Your task to perform on an android device: change the upload size in google photos Image 0: 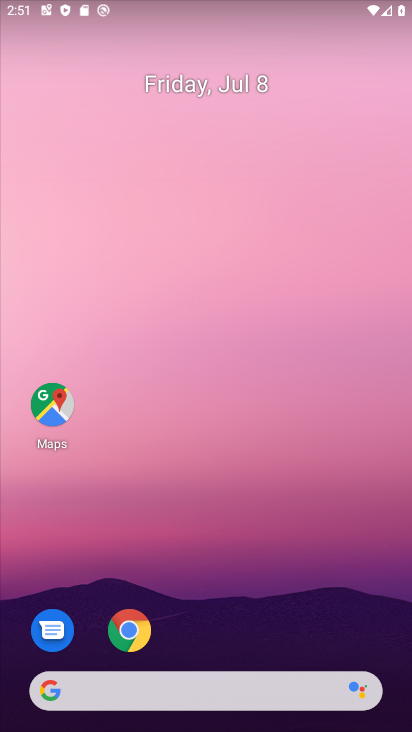
Step 0: drag from (219, 641) to (174, 156)
Your task to perform on an android device: change the upload size in google photos Image 1: 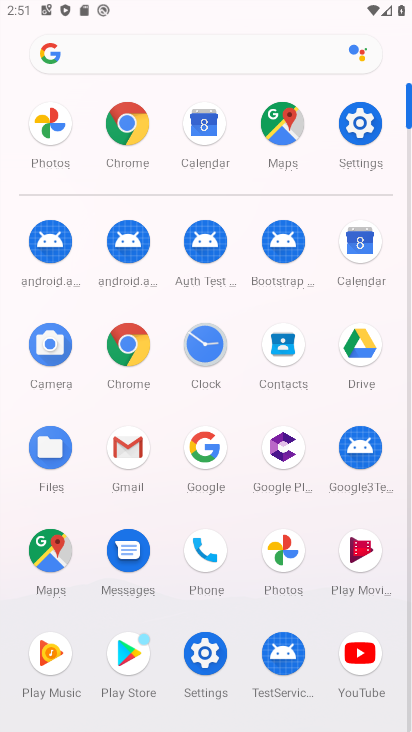
Step 1: click (52, 149)
Your task to perform on an android device: change the upload size in google photos Image 2: 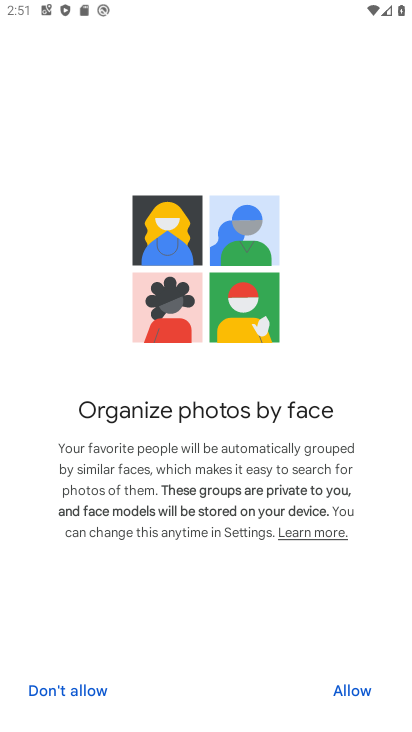
Step 2: click (336, 678)
Your task to perform on an android device: change the upload size in google photos Image 3: 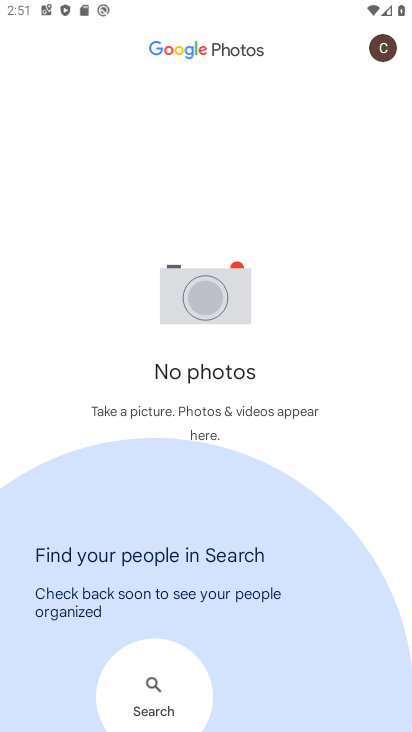
Step 3: click (336, 678)
Your task to perform on an android device: change the upload size in google photos Image 4: 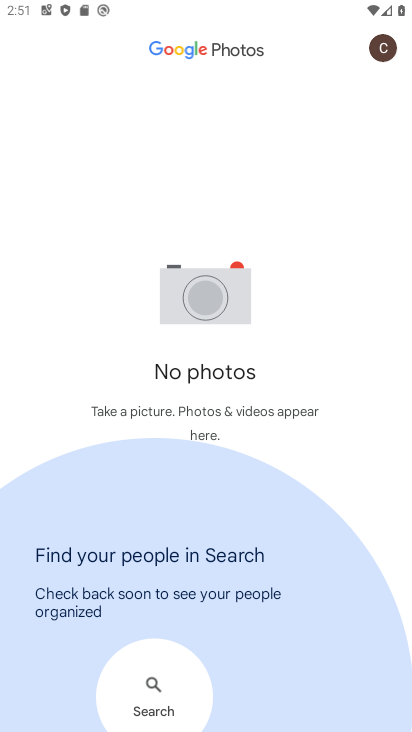
Step 4: click (315, 324)
Your task to perform on an android device: change the upload size in google photos Image 5: 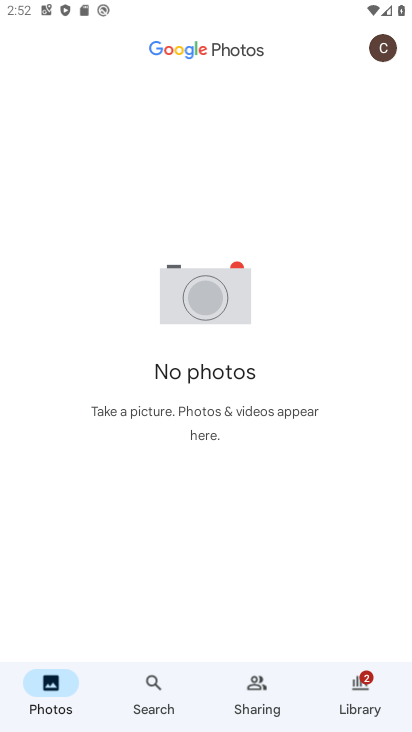
Step 5: click (341, 680)
Your task to perform on an android device: change the upload size in google photos Image 6: 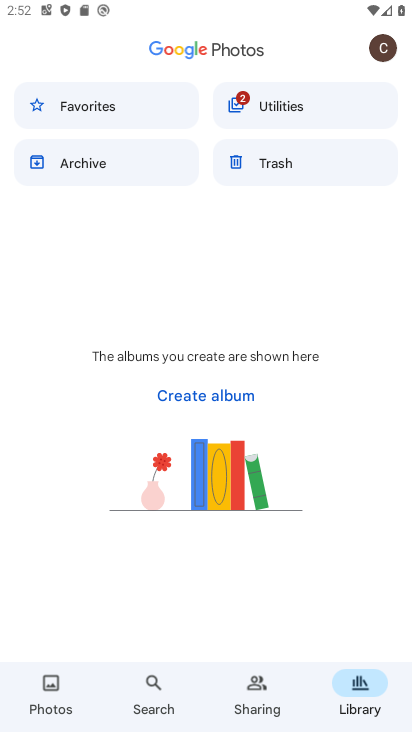
Step 6: task complete